Your task to perform on an android device: Open Google Image 0: 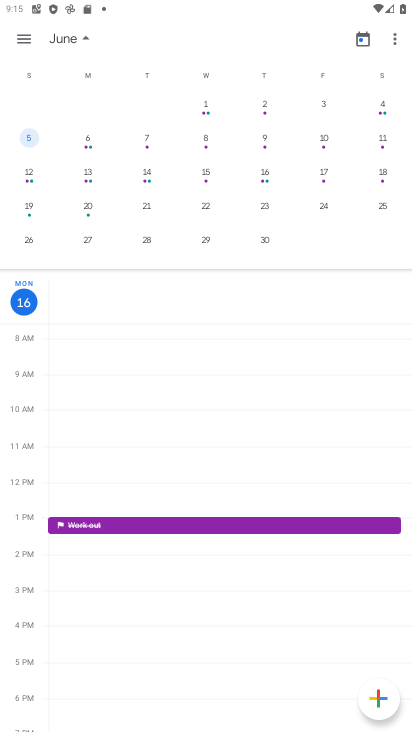
Step 0: press home button
Your task to perform on an android device: Open Google Image 1: 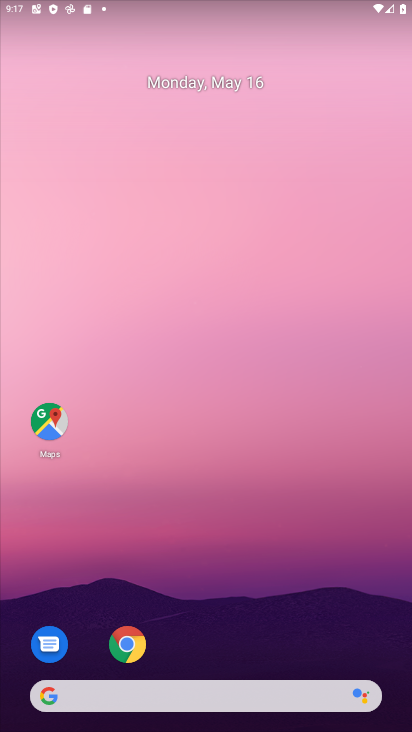
Step 1: drag from (182, 730) to (101, 109)
Your task to perform on an android device: Open Google Image 2: 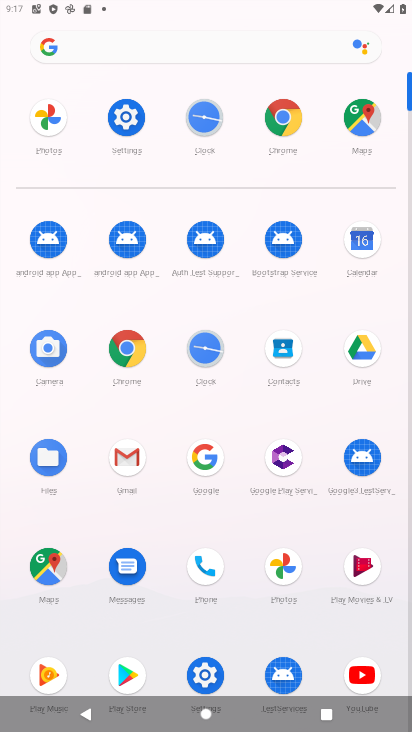
Step 2: click (197, 455)
Your task to perform on an android device: Open Google Image 3: 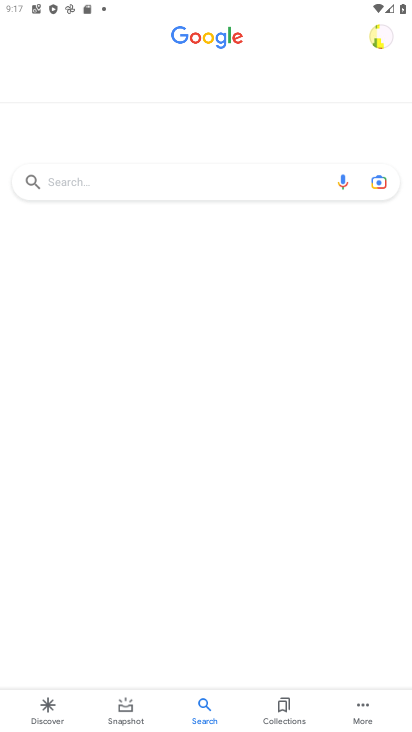
Step 3: task complete